Your task to perform on an android device: Search for "razer naga" on target, select the first entry, and add it to the cart. Image 0: 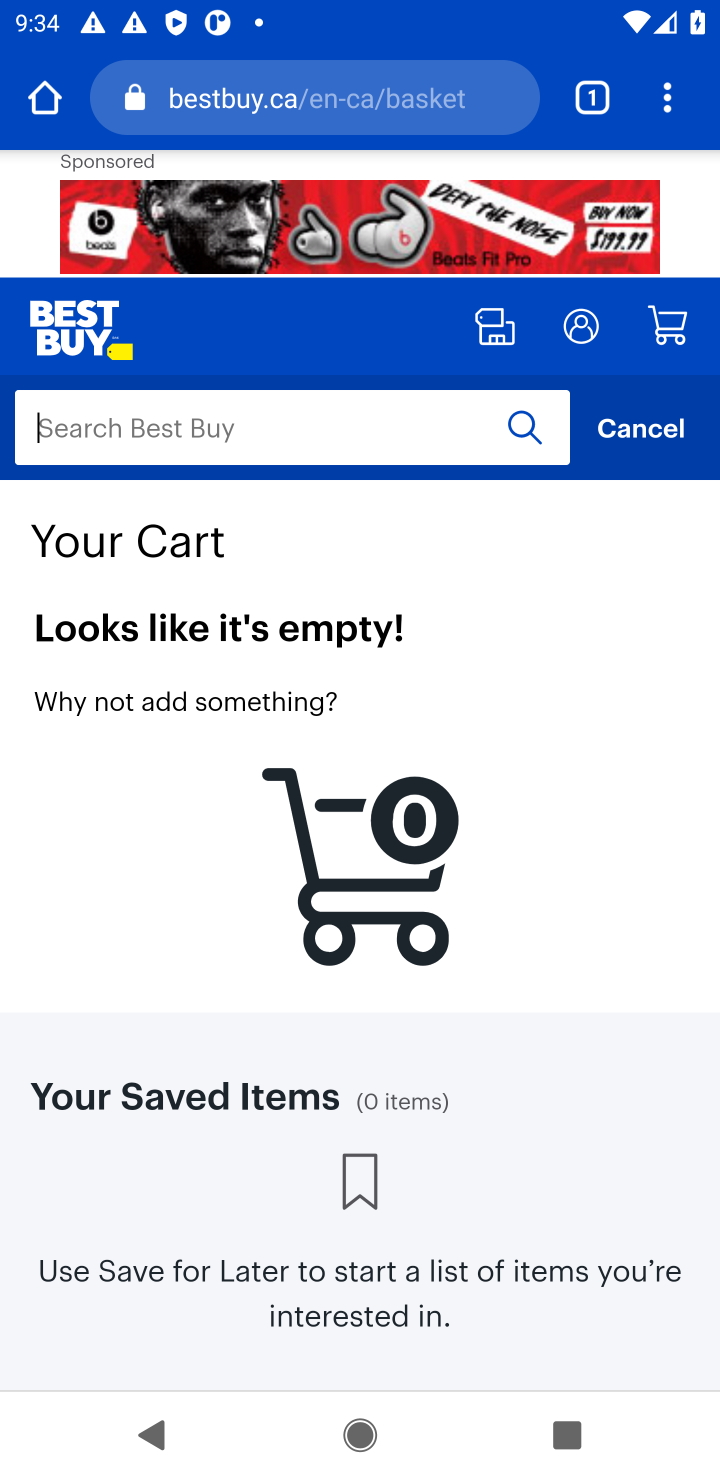
Step 0: task complete